Your task to perform on an android device: search for outdoor chairs on article.com Image 0: 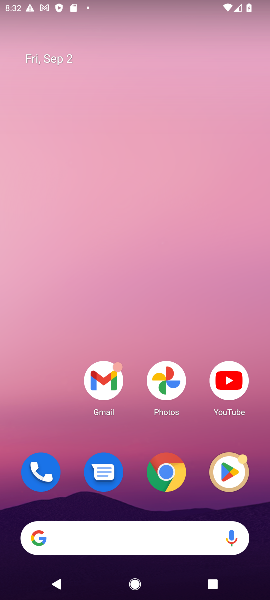
Step 0: drag from (142, 525) to (142, 104)
Your task to perform on an android device: search for outdoor chairs on article.com Image 1: 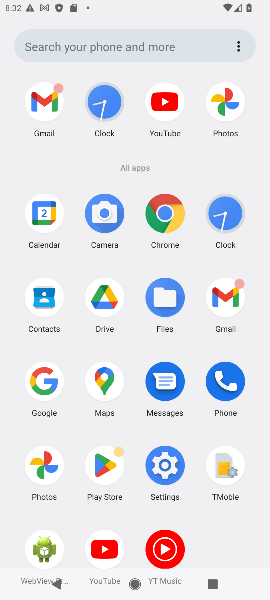
Step 1: click (51, 378)
Your task to perform on an android device: search for outdoor chairs on article.com Image 2: 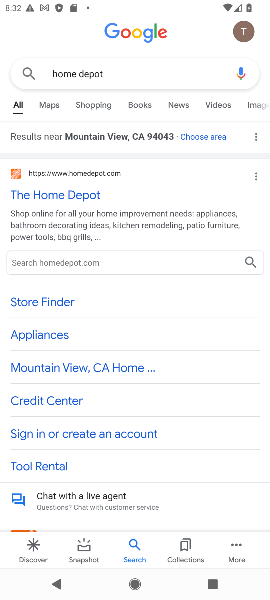
Step 2: click (106, 69)
Your task to perform on an android device: search for outdoor chairs on article.com Image 3: 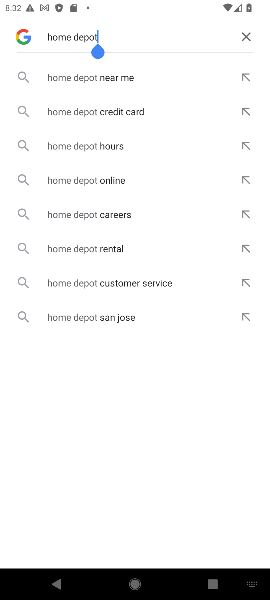
Step 3: click (247, 37)
Your task to perform on an android device: search for outdoor chairs on article.com Image 4: 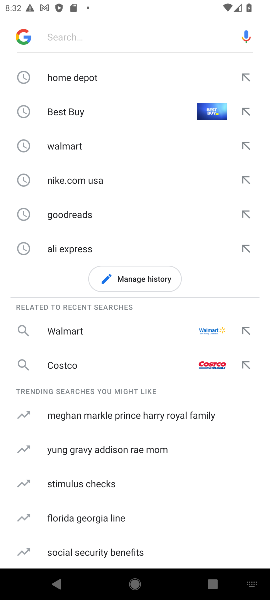
Step 4: type "article.com"
Your task to perform on an android device: search for outdoor chairs on article.com Image 5: 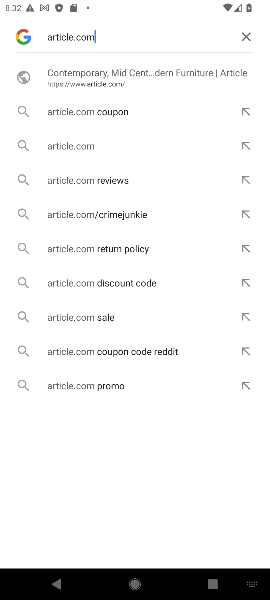
Step 5: click (85, 148)
Your task to perform on an android device: search for outdoor chairs on article.com Image 6: 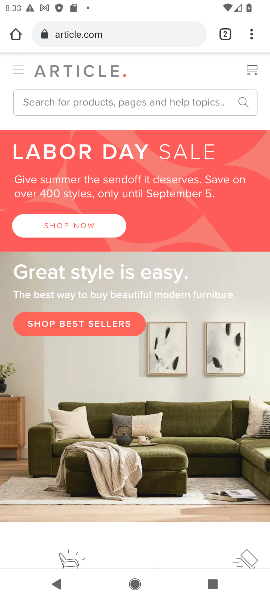
Step 6: click (76, 100)
Your task to perform on an android device: search for outdoor chairs on article.com Image 7: 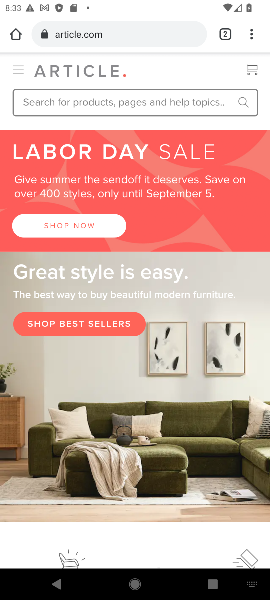
Step 7: type "outdoor chairs "
Your task to perform on an android device: search for outdoor chairs on article.com Image 8: 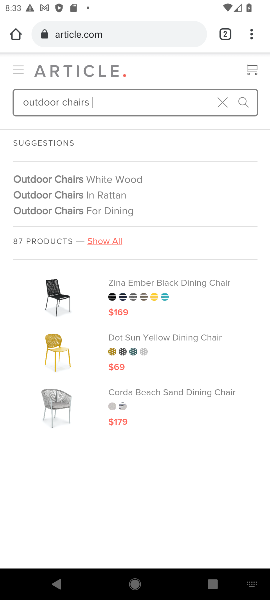
Step 8: click (79, 309)
Your task to perform on an android device: search for outdoor chairs on article.com Image 9: 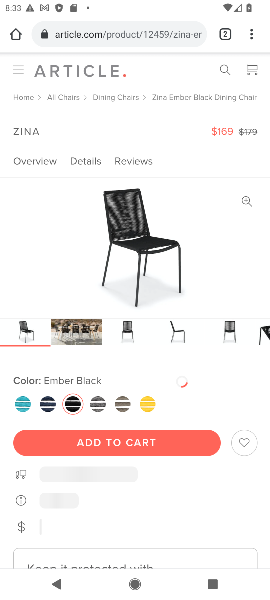
Step 9: task complete